Your task to perform on an android device: turn pop-ups off in chrome Image 0: 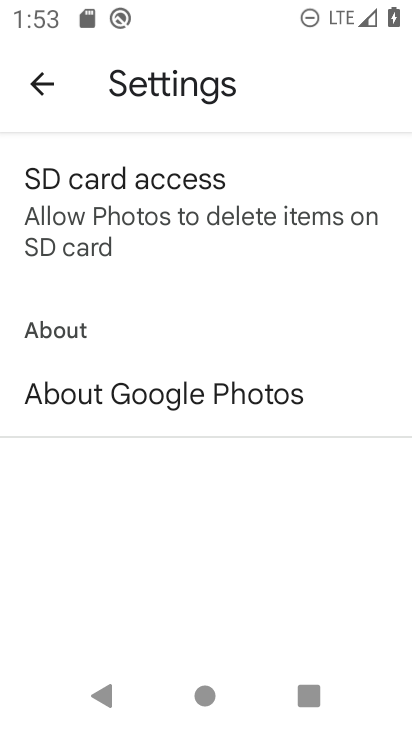
Step 0: press home button
Your task to perform on an android device: turn pop-ups off in chrome Image 1: 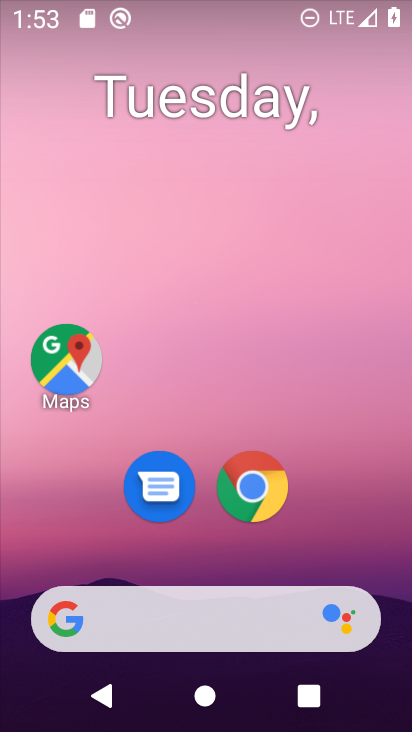
Step 1: drag from (248, 556) to (235, 85)
Your task to perform on an android device: turn pop-ups off in chrome Image 2: 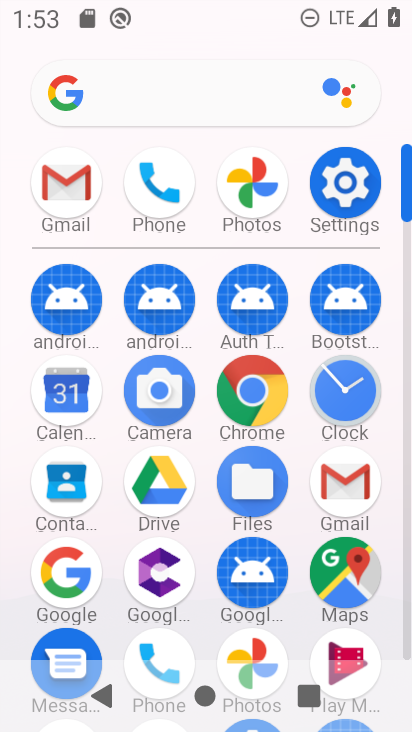
Step 2: click (243, 404)
Your task to perform on an android device: turn pop-ups off in chrome Image 3: 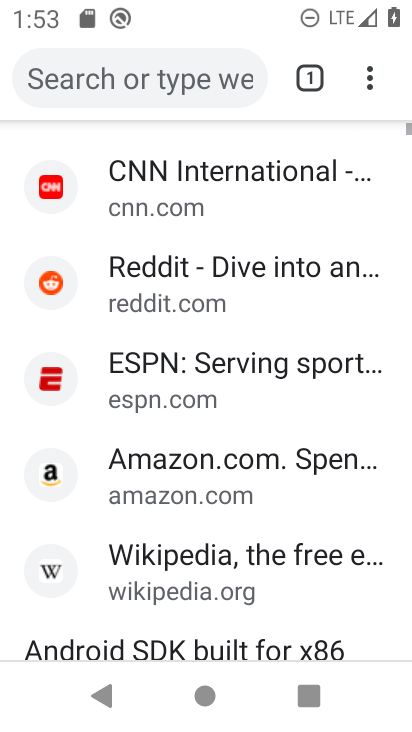
Step 3: click (368, 90)
Your task to perform on an android device: turn pop-ups off in chrome Image 4: 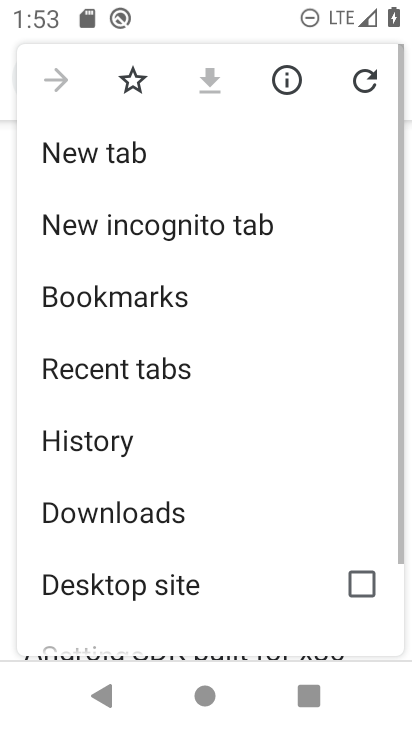
Step 4: drag from (213, 457) to (220, 135)
Your task to perform on an android device: turn pop-ups off in chrome Image 5: 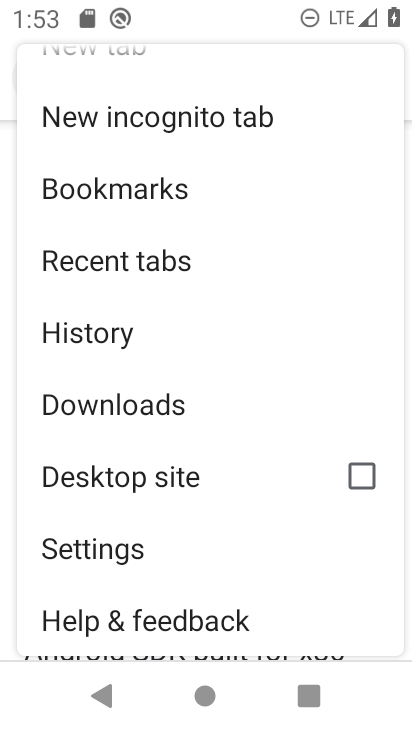
Step 5: click (165, 552)
Your task to perform on an android device: turn pop-ups off in chrome Image 6: 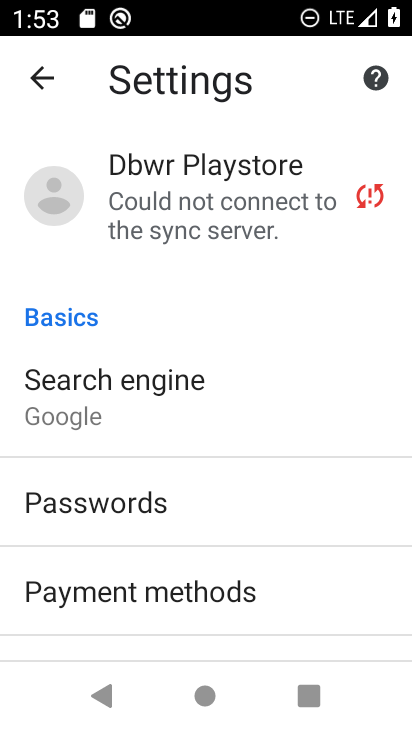
Step 6: drag from (172, 532) to (221, 172)
Your task to perform on an android device: turn pop-ups off in chrome Image 7: 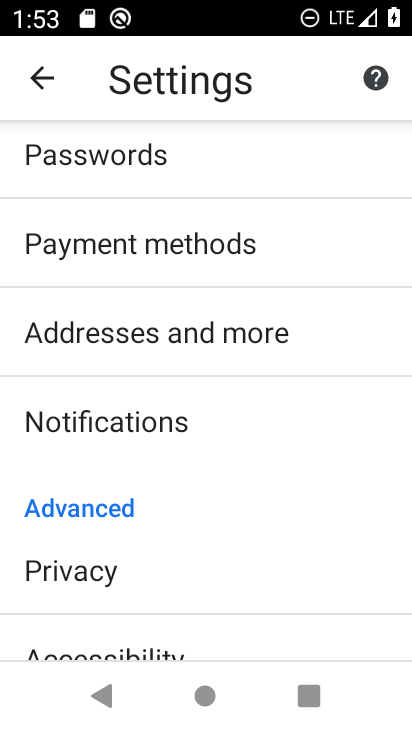
Step 7: drag from (158, 560) to (191, 232)
Your task to perform on an android device: turn pop-ups off in chrome Image 8: 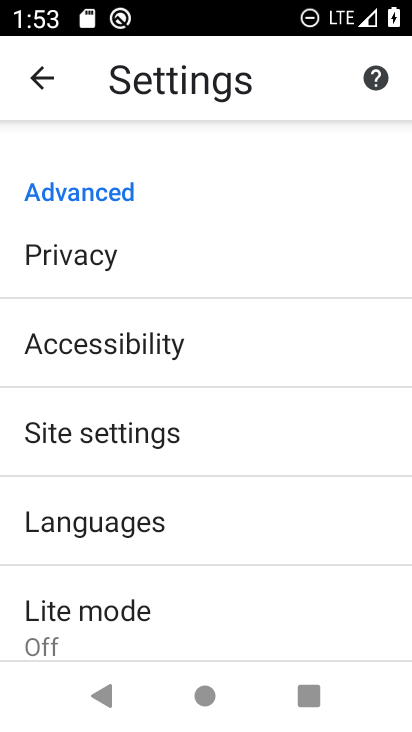
Step 8: click (157, 443)
Your task to perform on an android device: turn pop-ups off in chrome Image 9: 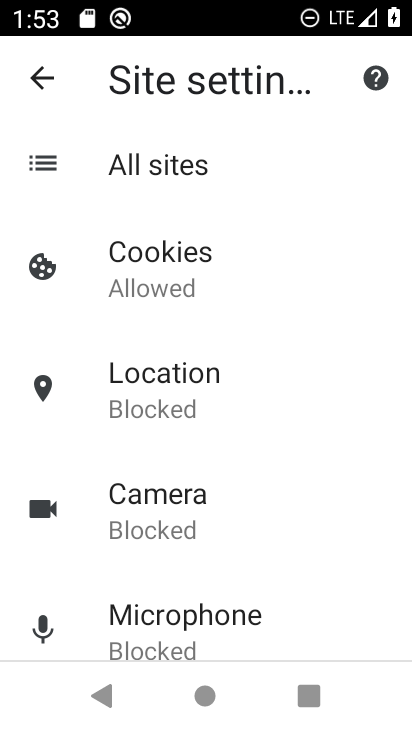
Step 9: drag from (203, 513) to (217, 134)
Your task to perform on an android device: turn pop-ups off in chrome Image 10: 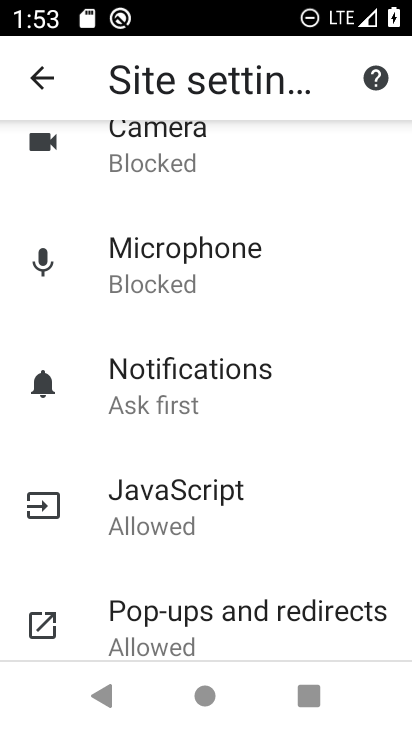
Step 10: click (232, 615)
Your task to perform on an android device: turn pop-ups off in chrome Image 11: 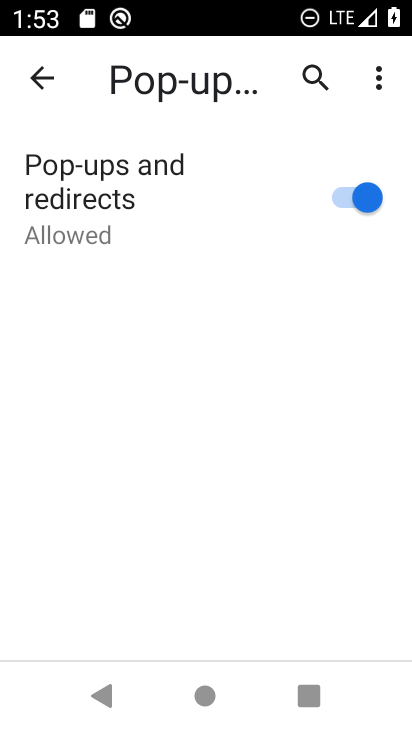
Step 11: click (367, 209)
Your task to perform on an android device: turn pop-ups off in chrome Image 12: 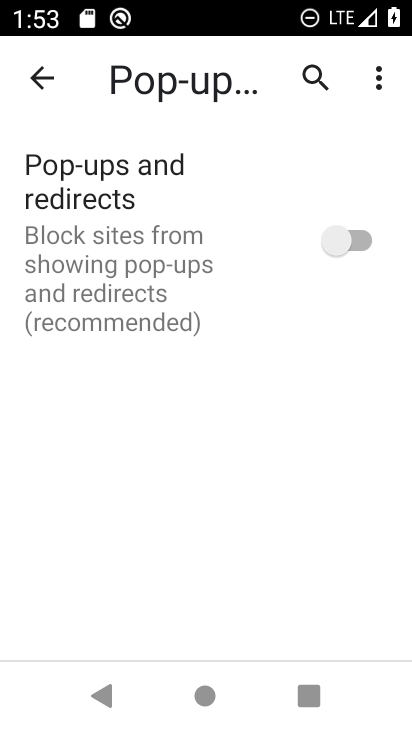
Step 12: task complete